Your task to perform on an android device: change timer sound Image 0: 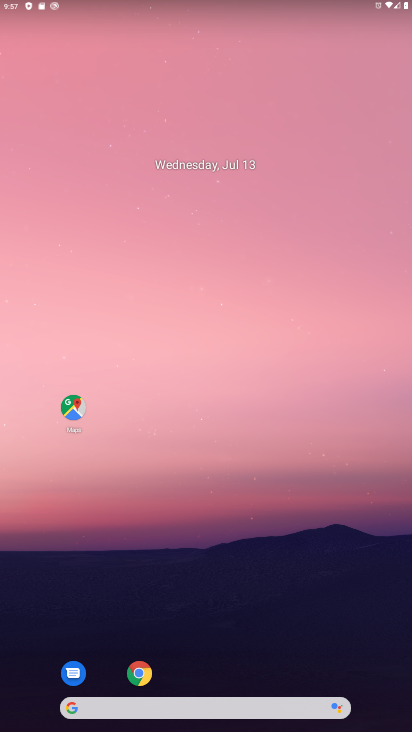
Step 0: press home button
Your task to perform on an android device: change timer sound Image 1: 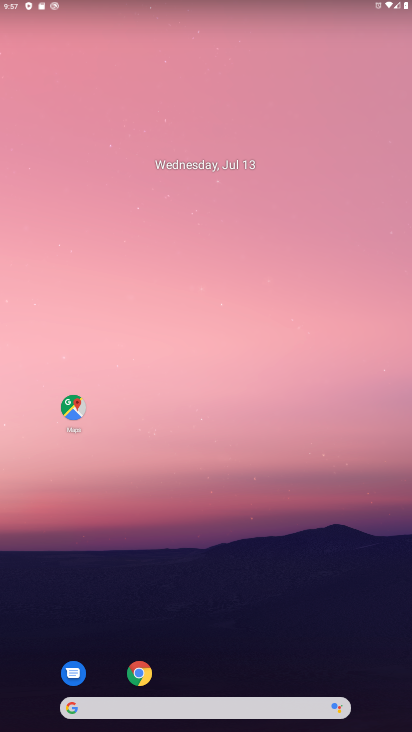
Step 1: drag from (239, 703) to (273, 270)
Your task to perform on an android device: change timer sound Image 2: 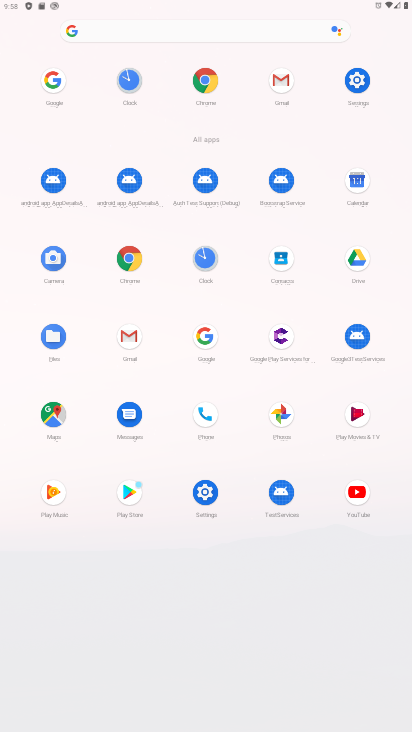
Step 2: click (199, 265)
Your task to perform on an android device: change timer sound Image 3: 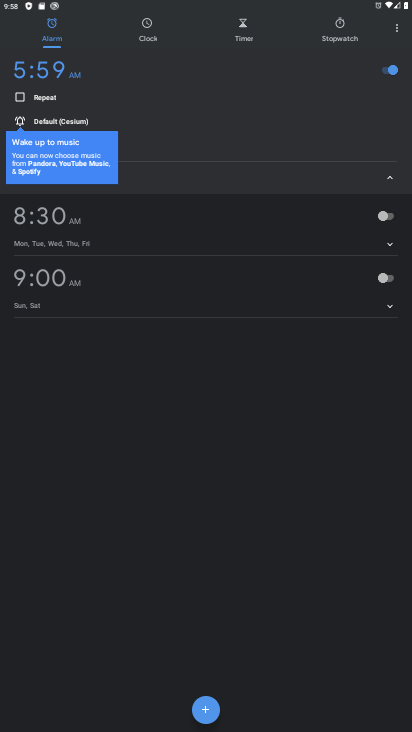
Step 3: click (393, 29)
Your task to perform on an android device: change timer sound Image 4: 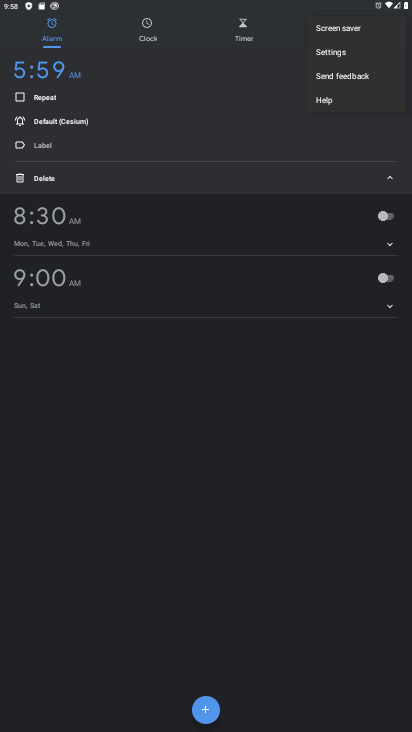
Step 4: click (324, 48)
Your task to perform on an android device: change timer sound Image 5: 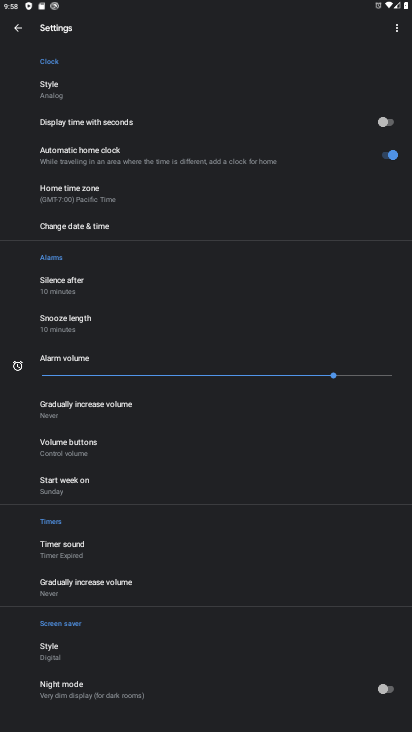
Step 5: click (65, 550)
Your task to perform on an android device: change timer sound Image 6: 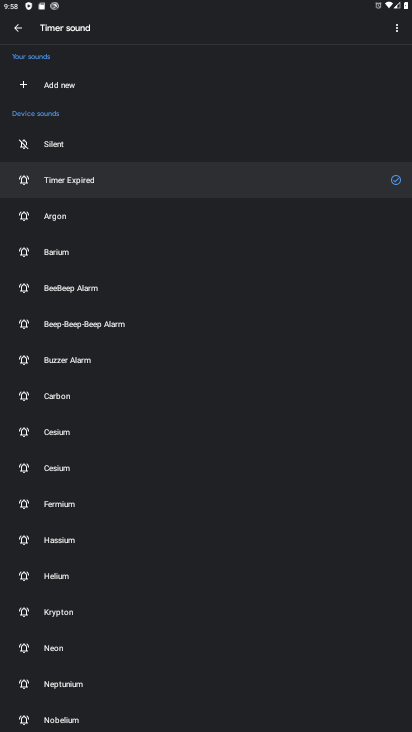
Step 6: click (51, 225)
Your task to perform on an android device: change timer sound Image 7: 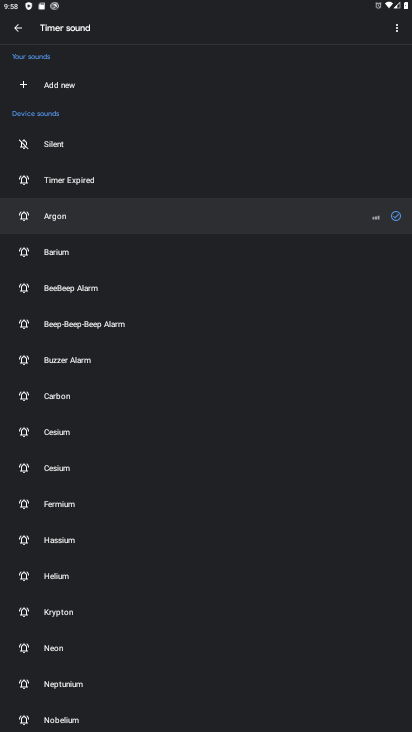
Step 7: task complete